Your task to perform on an android device: move an email to a new category in the gmail app Image 0: 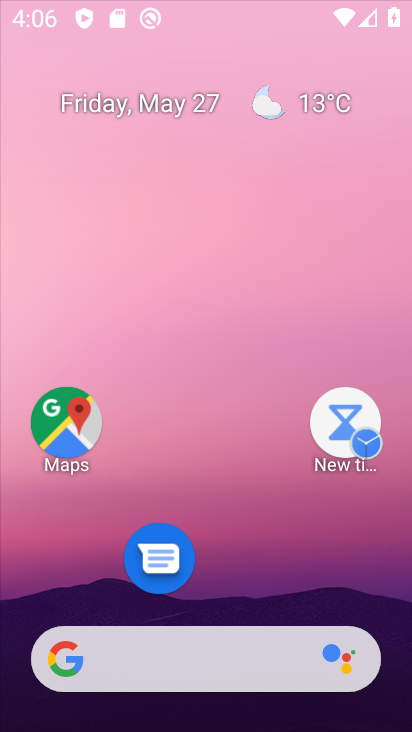
Step 0: drag from (211, 401) to (180, 193)
Your task to perform on an android device: move an email to a new category in the gmail app Image 1: 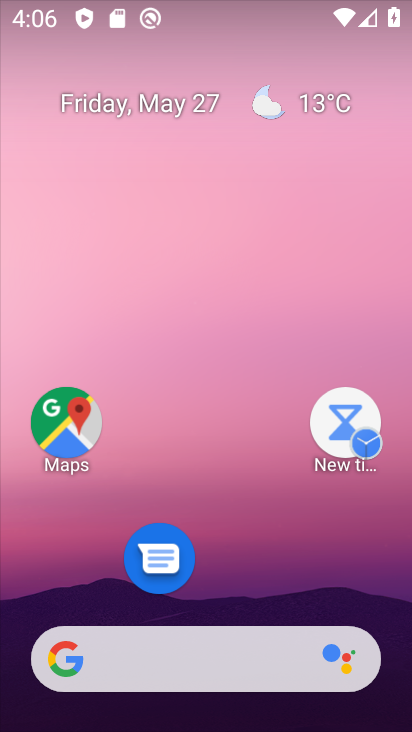
Step 1: drag from (273, 625) to (246, 245)
Your task to perform on an android device: move an email to a new category in the gmail app Image 2: 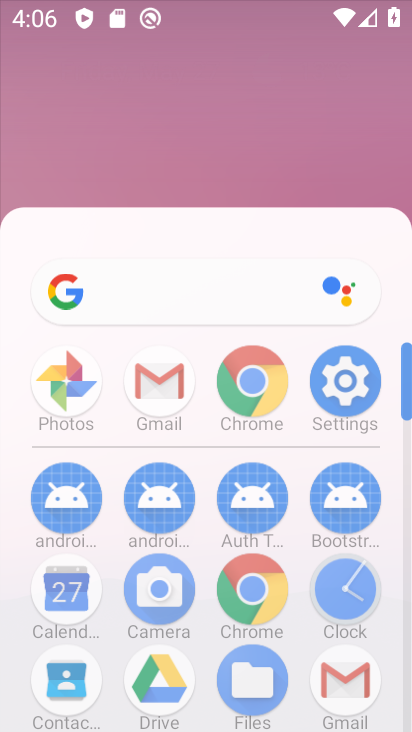
Step 2: drag from (259, 605) to (256, 210)
Your task to perform on an android device: move an email to a new category in the gmail app Image 3: 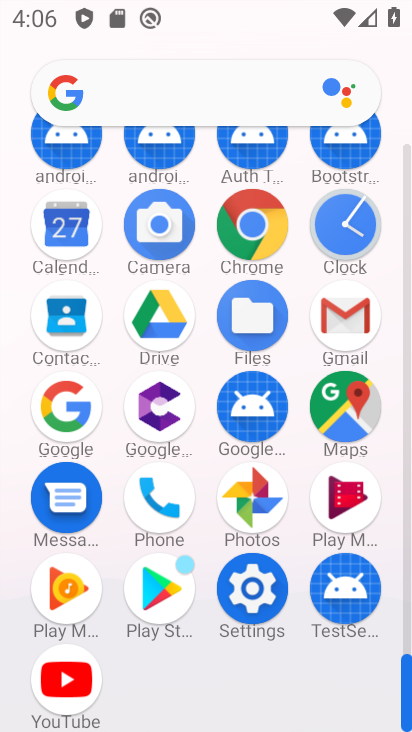
Step 3: click (347, 310)
Your task to perform on an android device: move an email to a new category in the gmail app Image 4: 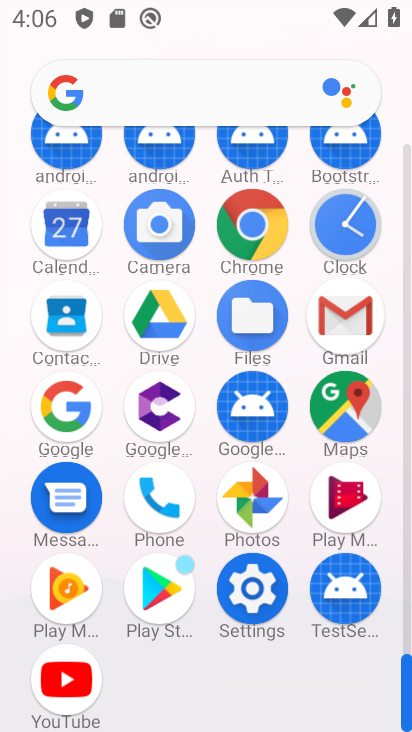
Step 4: click (349, 309)
Your task to perform on an android device: move an email to a new category in the gmail app Image 5: 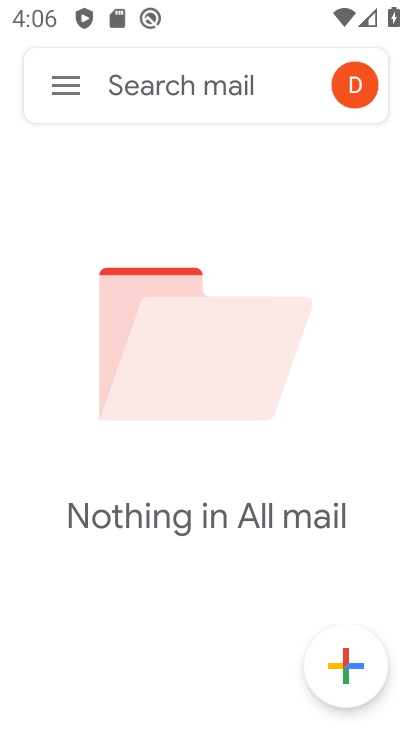
Step 5: click (75, 88)
Your task to perform on an android device: move an email to a new category in the gmail app Image 6: 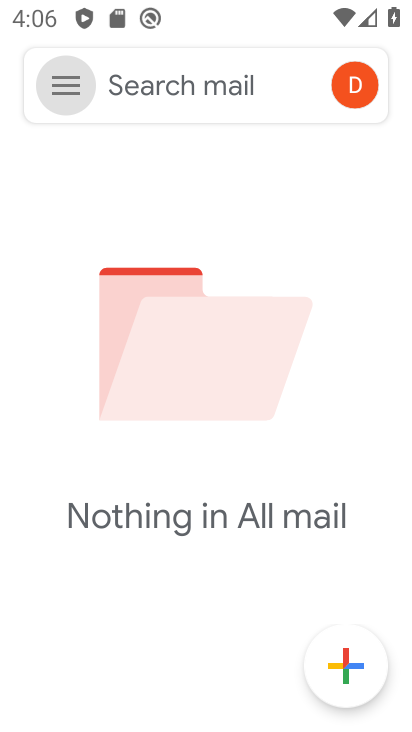
Step 6: click (75, 88)
Your task to perform on an android device: move an email to a new category in the gmail app Image 7: 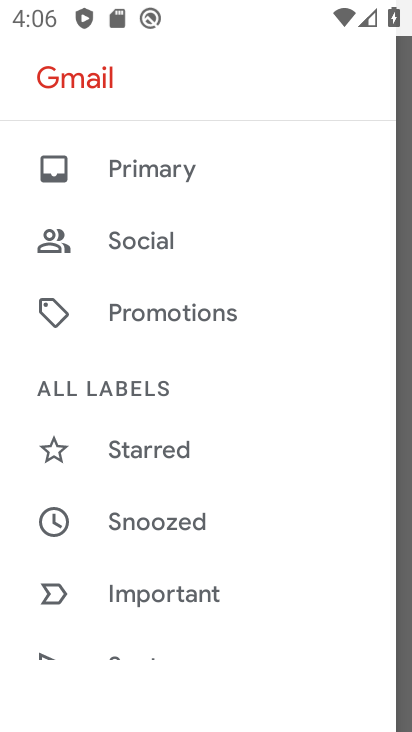
Step 7: drag from (223, 549) to (234, 132)
Your task to perform on an android device: move an email to a new category in the gmail app Image 8: 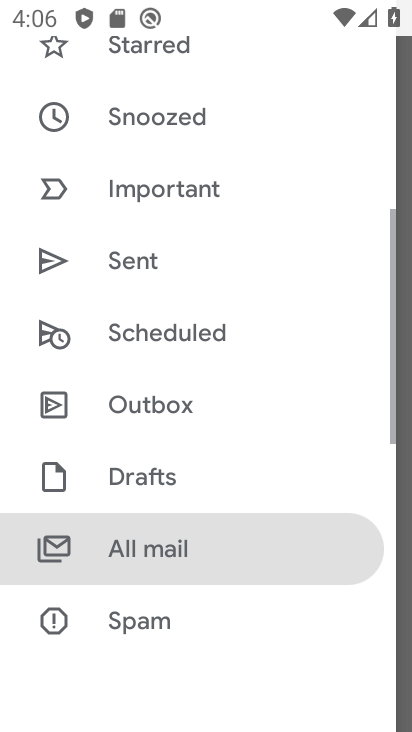
Step 8: drag from (273, 431) to (269, 131)
Your task to perform on an android device: move an email to a new category in the gmail app Image 9: 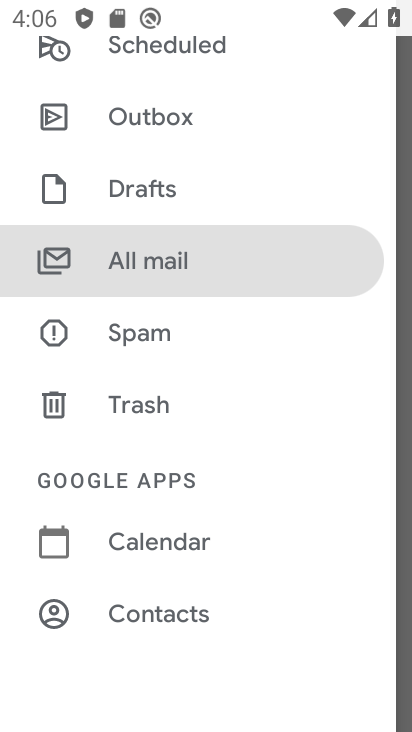
Step 9: click (137, 265)
Your task to perform on an android device: move an email to a new category in the gmail app Image 10: 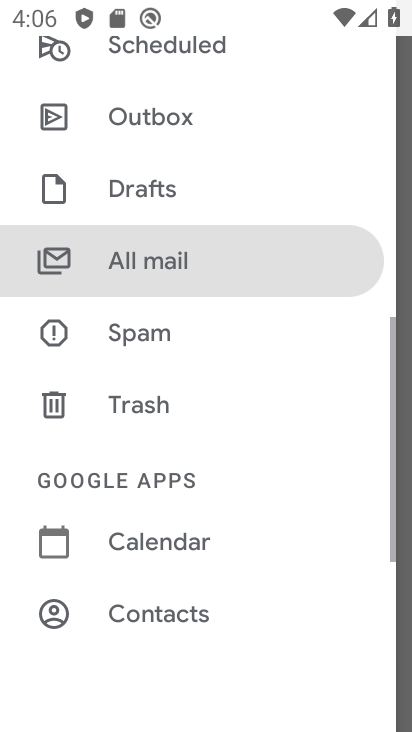
Step 10: click (137, 265)
Your task to perform on an android device: move an email to a new category in the gmail app Image 11: 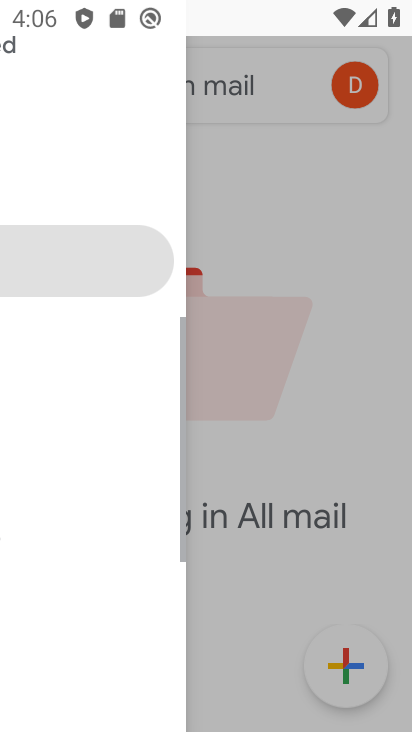
Step 11: click (137, 266)
Your task to perform on an android device: move an email to a new category in the gmail app Image 12: 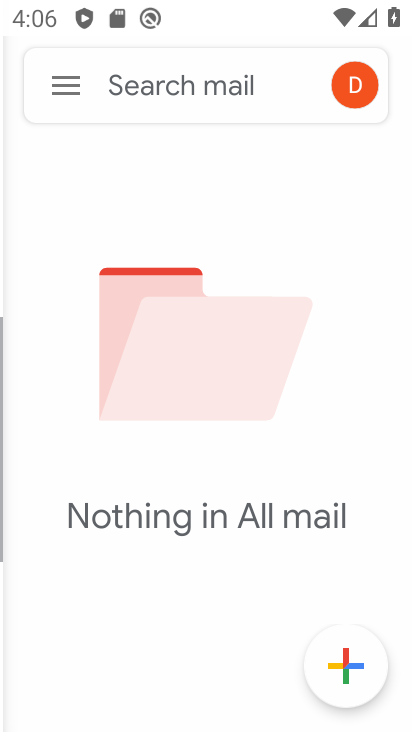
Step 12: click (137, 266)
Your task to perform on an android device: move an email to a new category in the gmail app Image 13: 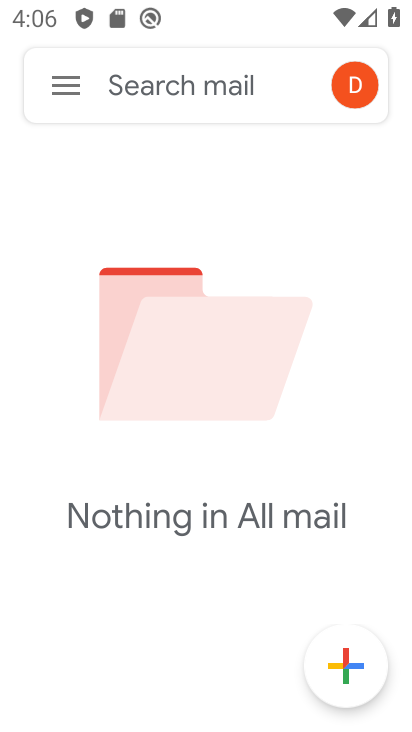
Step 13: click (137, 266)
Your task to perform on an android device: move an email to a new category in the gmail app Image 14: 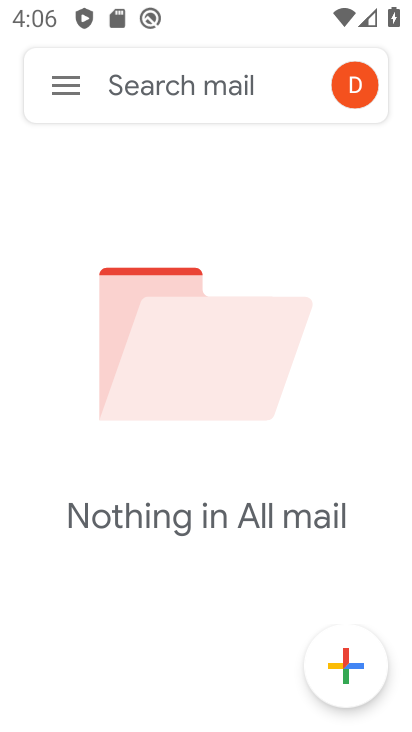
Step 14: task complete